Your task to perform on an android device: turn on sleep mode Image 0: 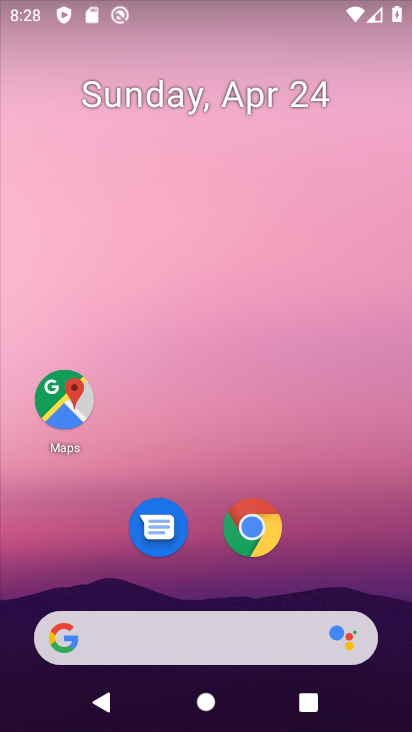
Step 0: drag from (391, 582) to (211, 16)
Your task to perform on an android device: turn on sleep mode Image 1: 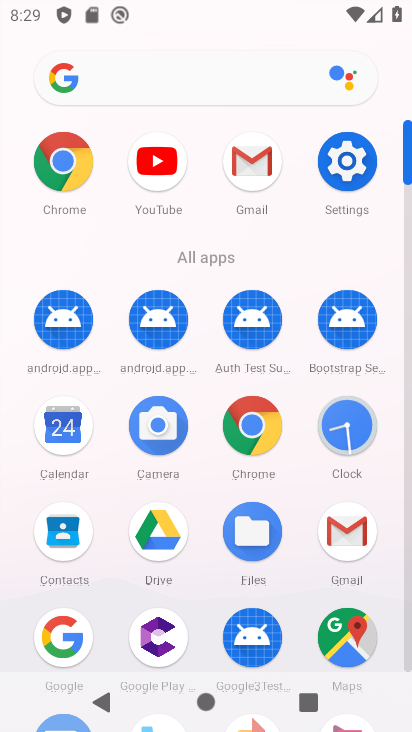
Step 1: click (342, 165)
Your task to perform on an android device: turn on sleep mode Image 2: 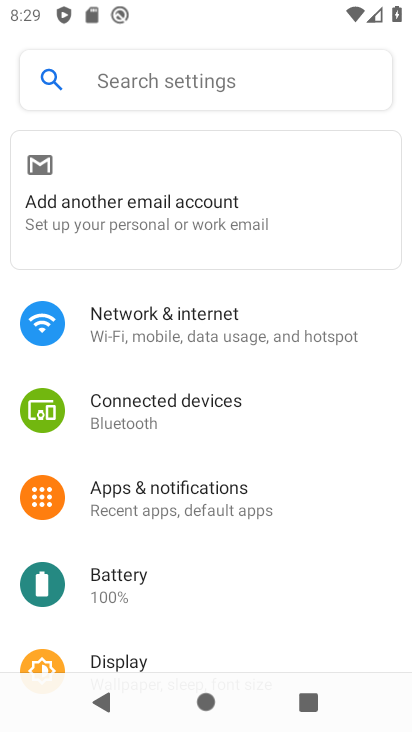
Step 2: click (123, 661)
Your task to perform on an android device: turn on sleep mode Image 3: 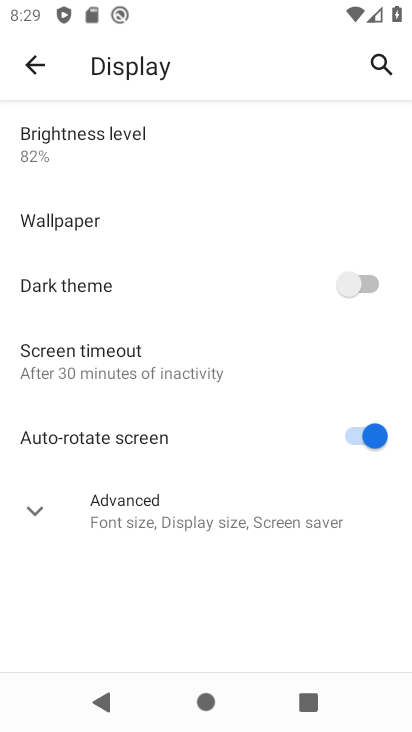
Step 3: click (22, 512)
Your task to perform on an android device: turn on sleep mode Image 4: 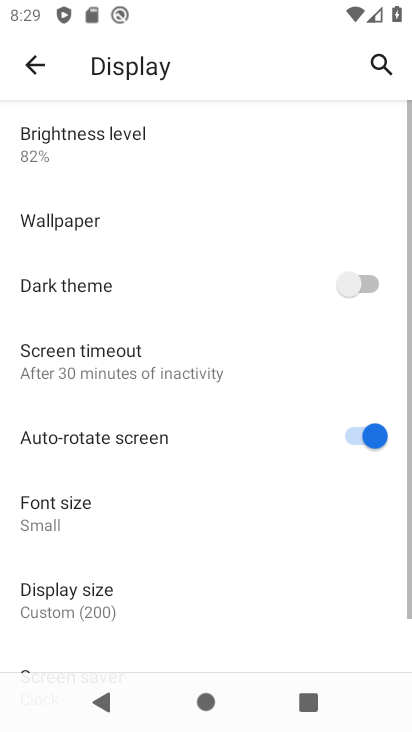
Step 4: task complete